Your task to perform on an android device: stop showing notifications on the lock screen Image 0: 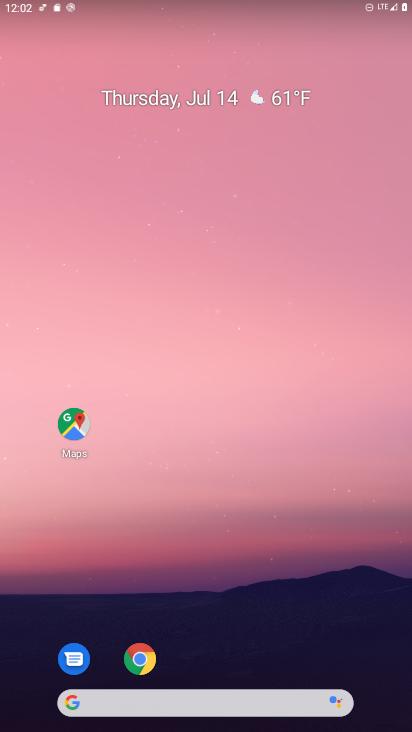
Step 0: drag from (382, 668) to (347, 194)
Your task to perform on an android device: stop showing notifications on the lock screen Image 1: 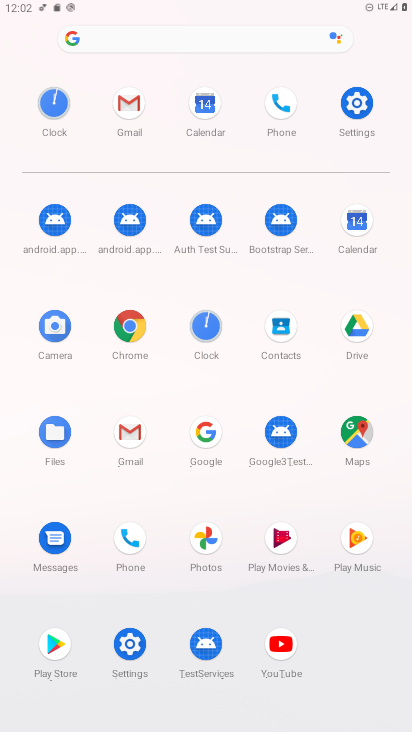
Step 1: click (129, 641)
Your task to perform on an android device: stop showing notifications on the lock screen Image 2: 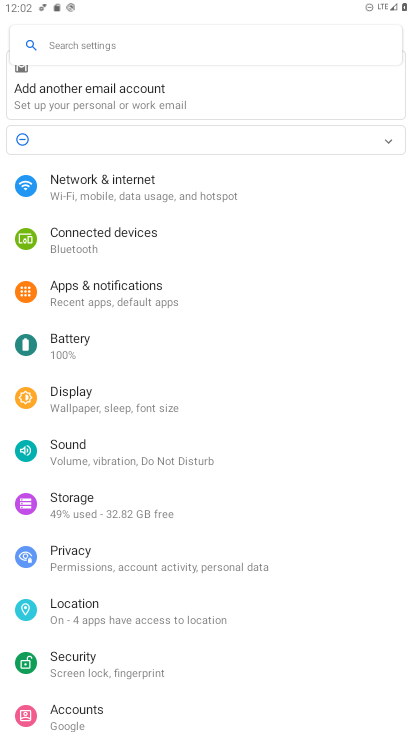
Step 2: click (107, 294)
Your task to perform on an android device: stop showing notifications on the lock screen Image 3: 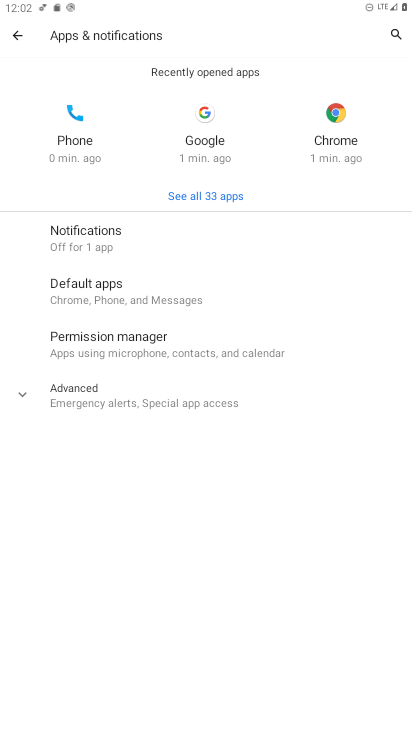
Step 3: click (73, 242)
Your task to perform on an android device: stop showing notifications on the lock screen Image 4: 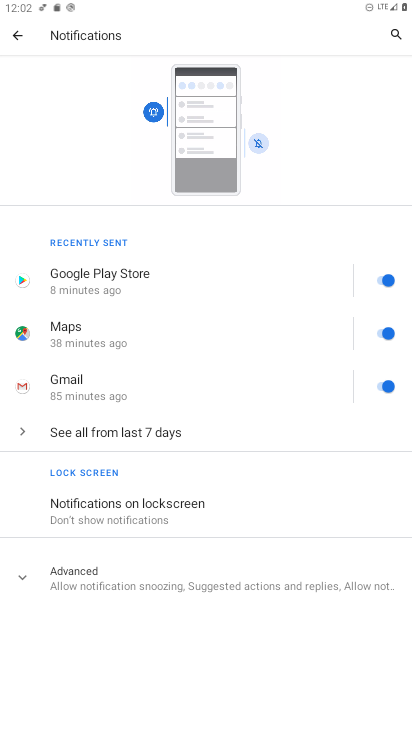
Step 4: click (78, 509)
Your task to perform on an android device: stop showing notifications on the lock screen Image 5: 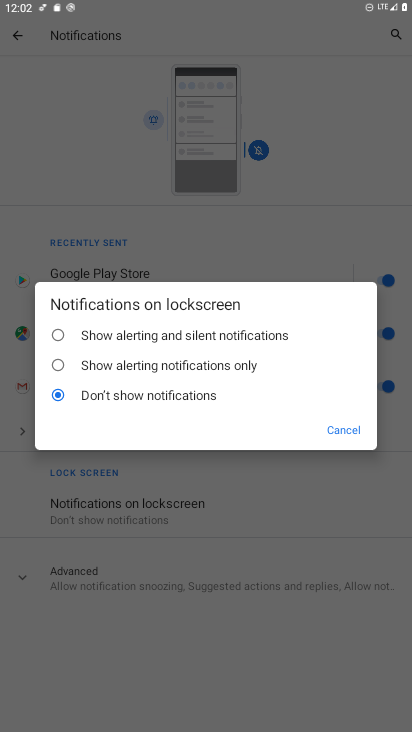
Step 5: task complete